Your task to perform on an android device: Open the stopwatch Image 0: 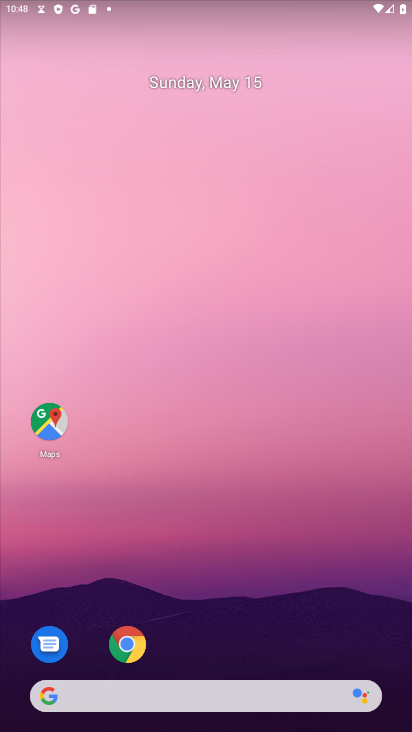
Step 0: drag from (197, 647) to (166, 256)
Your task to perform on an android device: Open the stopwatch Image 1: 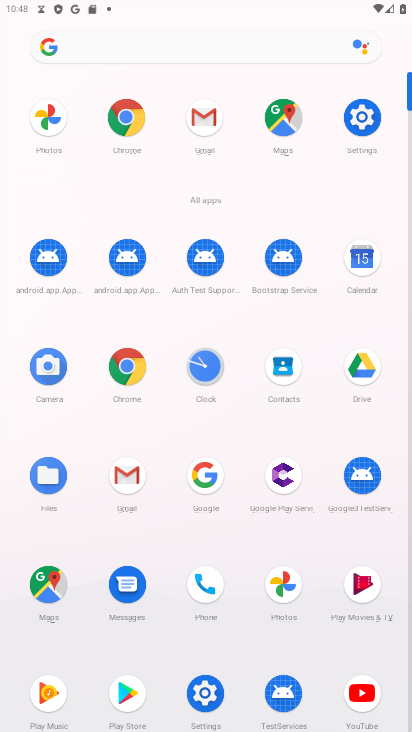
Step 1: click (216, 357)
Your task to perform on an android device: Open the stopwatch Image 2: 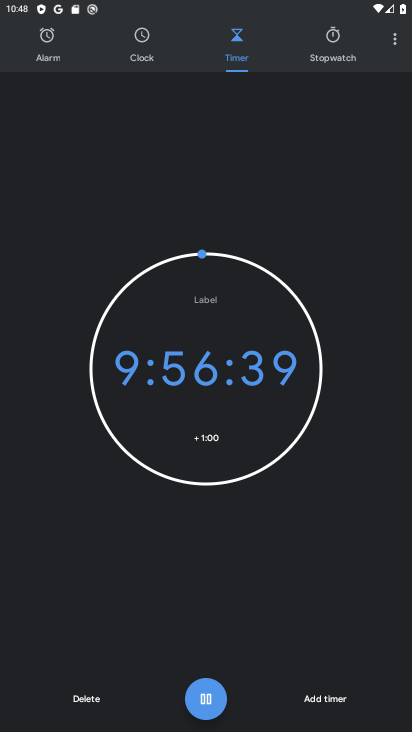
Step 2: click (326, 39)
Your task to perform on an android device: Open the stopwatch Image 3: 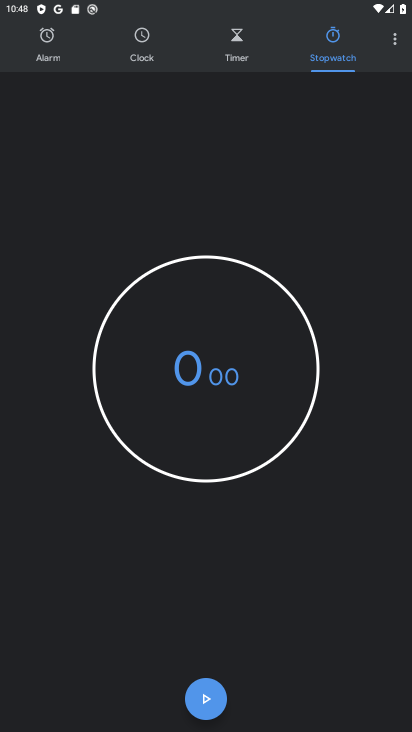
Step 3: click (204, 695)
Your task to perform on an android device: Open the stopwatch Image 4: 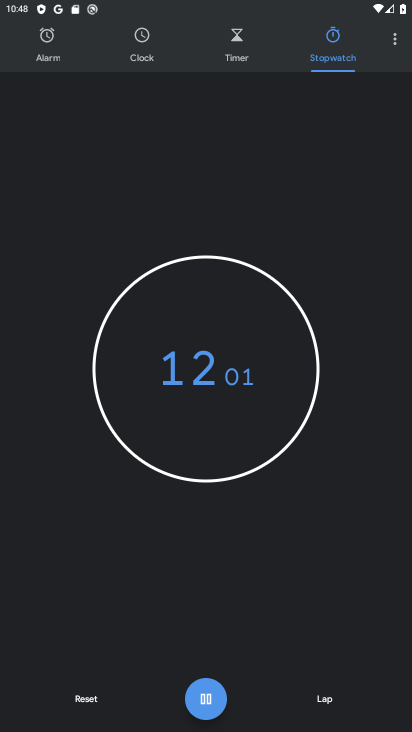
Step 4: task complete